Your task to perform on an android device: Do I have any events tomorrow? Image 0: 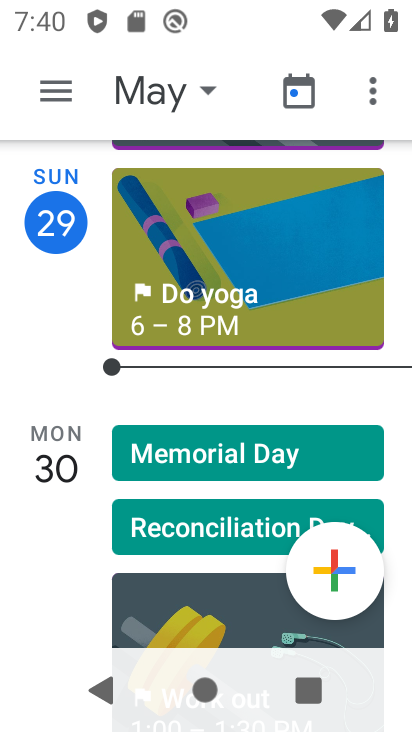
Step 0: press back button
Your task to perform on an android device: Do I have any events tomorrow? Image 1: 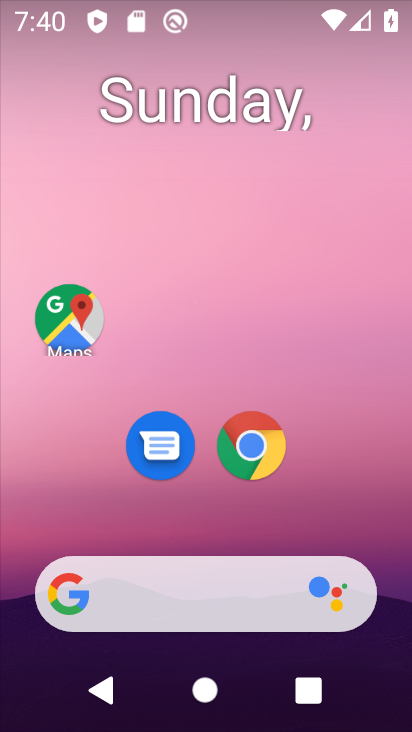
Step 1: drag from (320, 435) to (254, 12)
Your task to perform on an android device: Do I have any events tomorrow? Image 2: 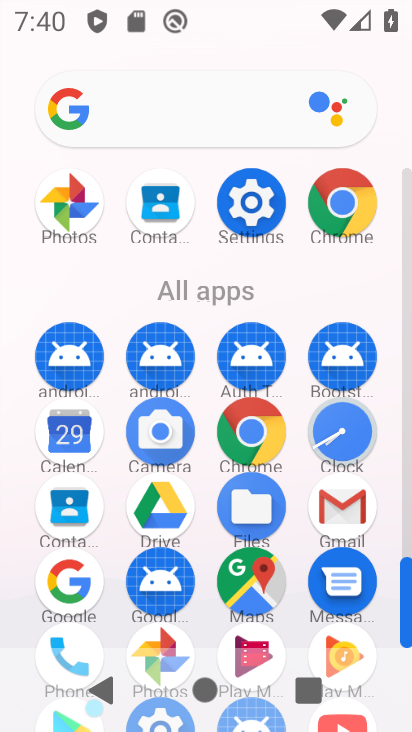
Step 2: drag from (16, 541) to (13, 267)
Your task to perform on an android device: Do I have any events tomorrow? Image 3: 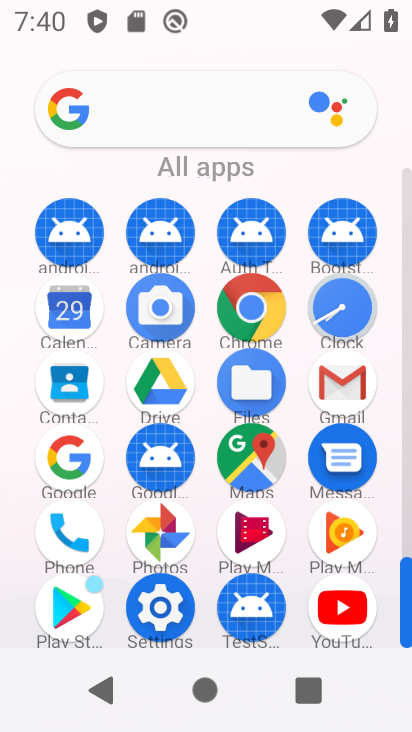
Step 3: drag from (7, 594) to (4, 314)
Your task to perform on an android device: Do I have any events tomorrow? Image 4: 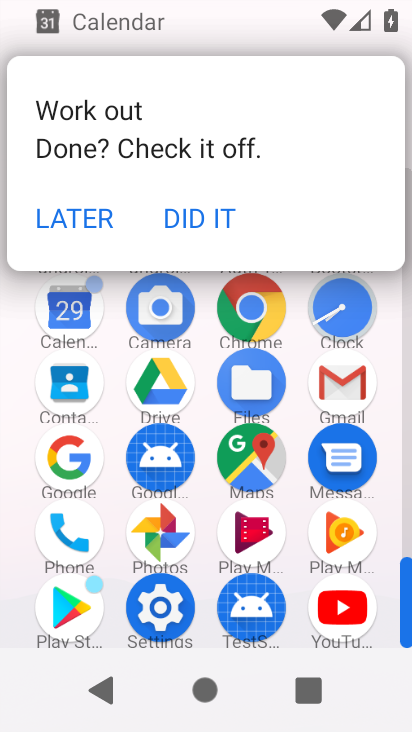
Step 4: click (89, 217)
Your task to perform on an android device: Do I have any events tomorrow? Image 5: 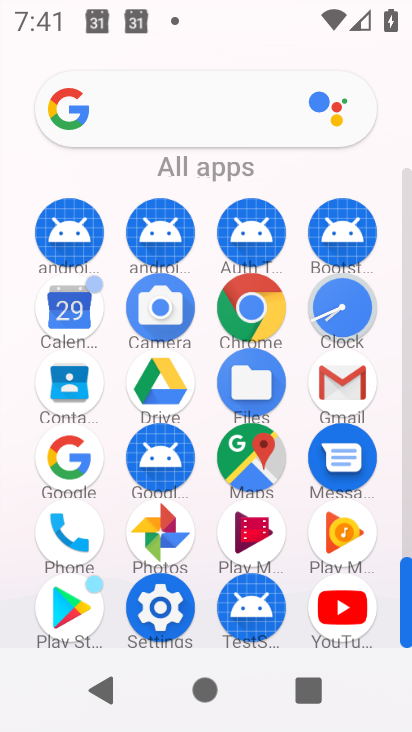
Step 5: click (66, 305)
Your task to perform on an android device: Do I have any events tomorrow? Image 6: 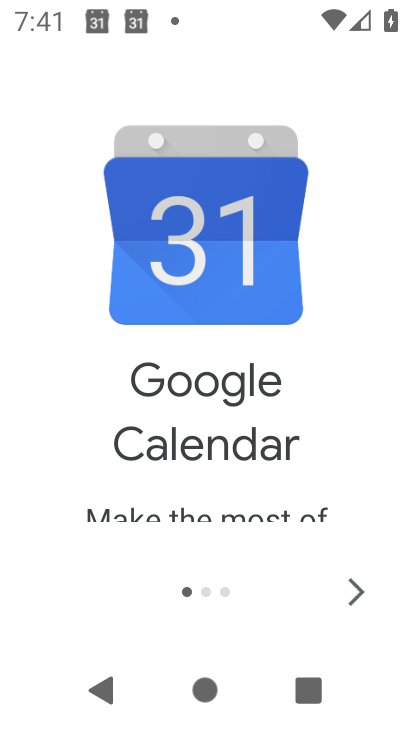
Step 6: click (345, 582)
Your task to perform on an android device: Do I have any events tomorrow? Image 7: 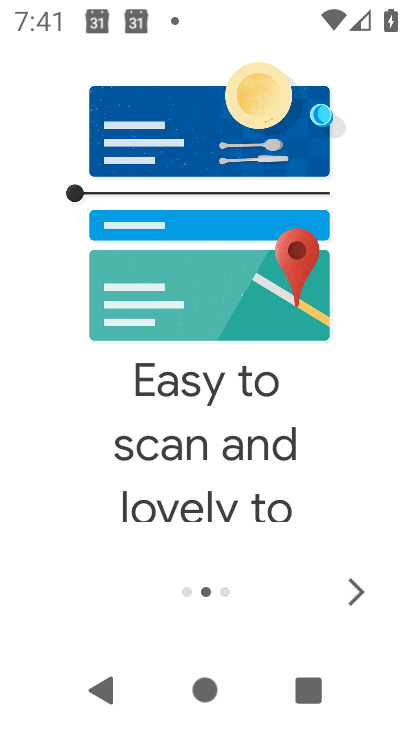
Step 7: click (346, 582)
Your task to perform on an android device: Do I have any events tomorrow? Image 8: 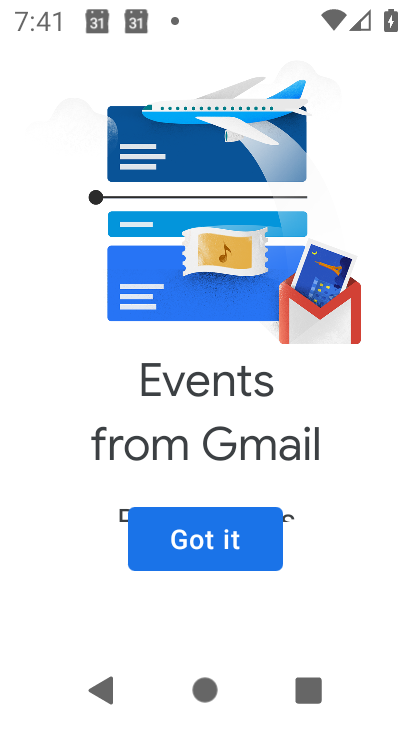
Step 8: click (229, 547)
Your task to perform on an android device: Do I have any events tomorrow? Image 9: 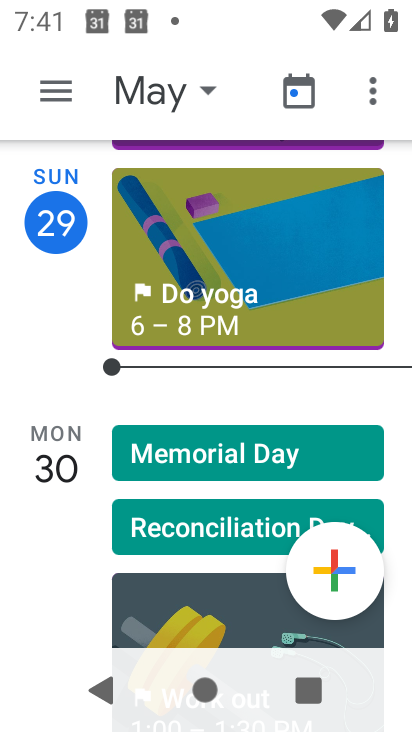
Step 9: click (156, 91)
Your task to perform on an android device: Do I have any events tomorrow? Image 10: 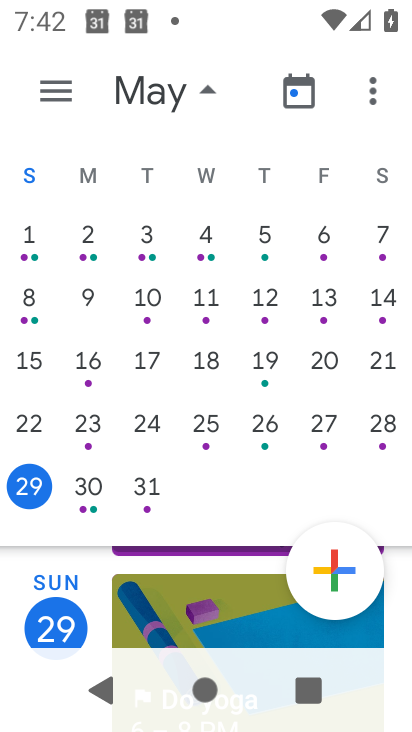
Step 10: click (97, 488)
Your task to perform on an android device: Do I have any events tomorrow? Image 11: 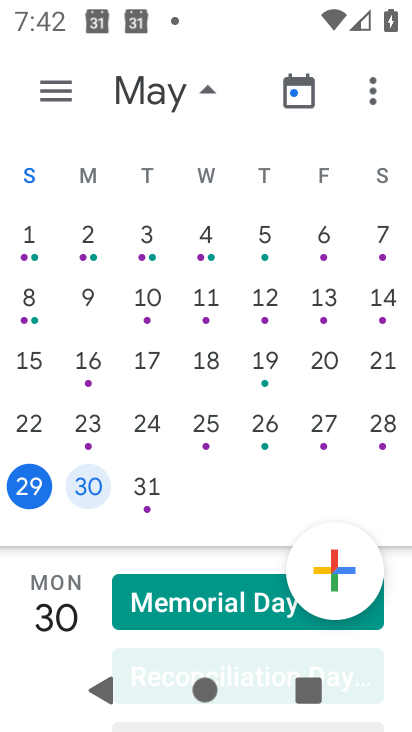
Step 11: drag from (77, 586) to (127, 243)
Your task to perform on an android device: Do I have any events tomorrow? Image 12: 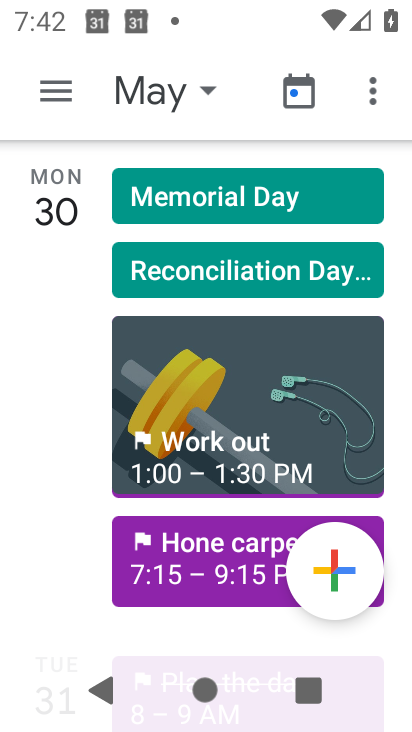
Step 12: click (62, 87)
Your task to perform on an android device: Do I have any events tomorrow? Image 13: 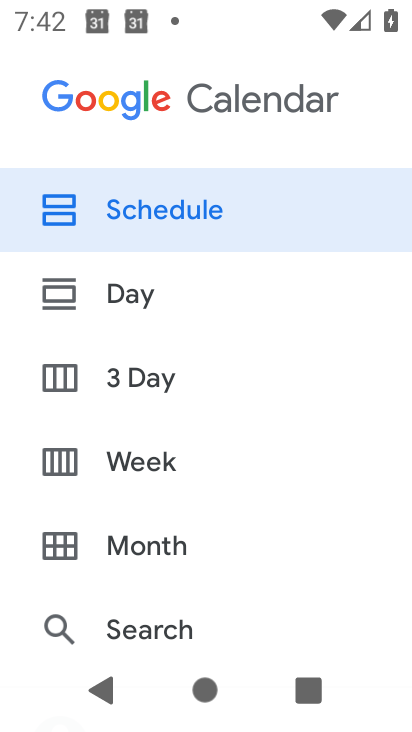
Step 13: click (127, 299)
Your task to perform on an android device: Do I have any events tomorrow? Image 14: 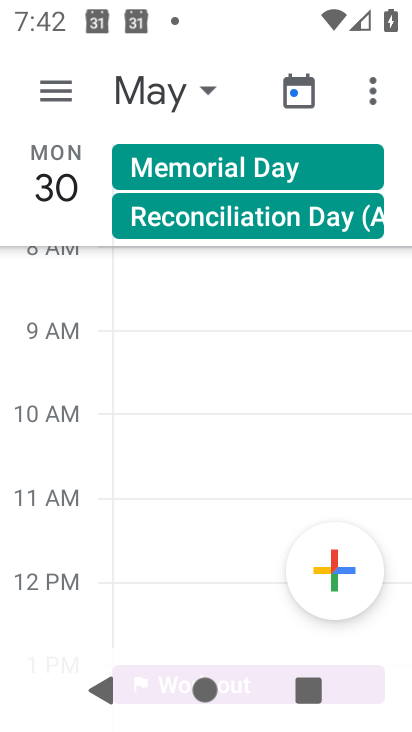
Step 14: task complete